Your task to perform on an android device: Go to CNN.com Image 0: 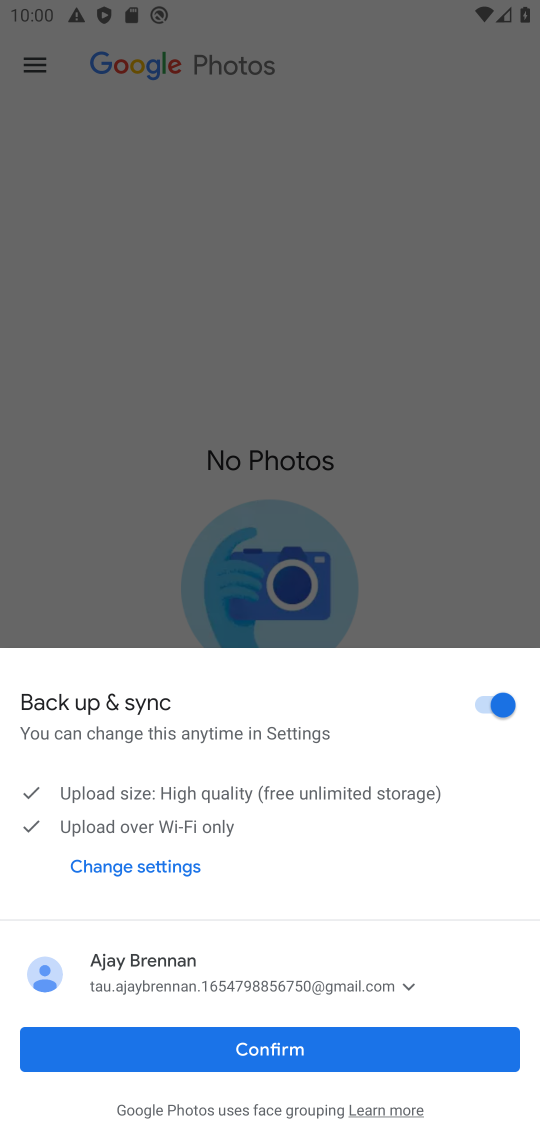
Step 0: press home button
Your task to perform on an android device: Go to CNN.com Image 1: 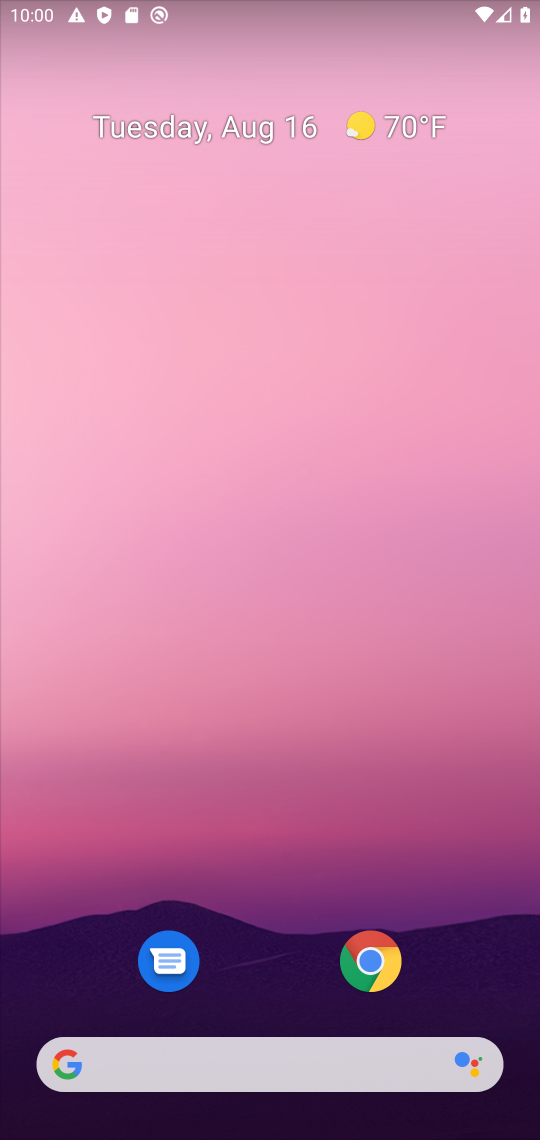
Step 1: click (252, 1042)
Your task to perform on an android device: Go to CNN.com Image 2: 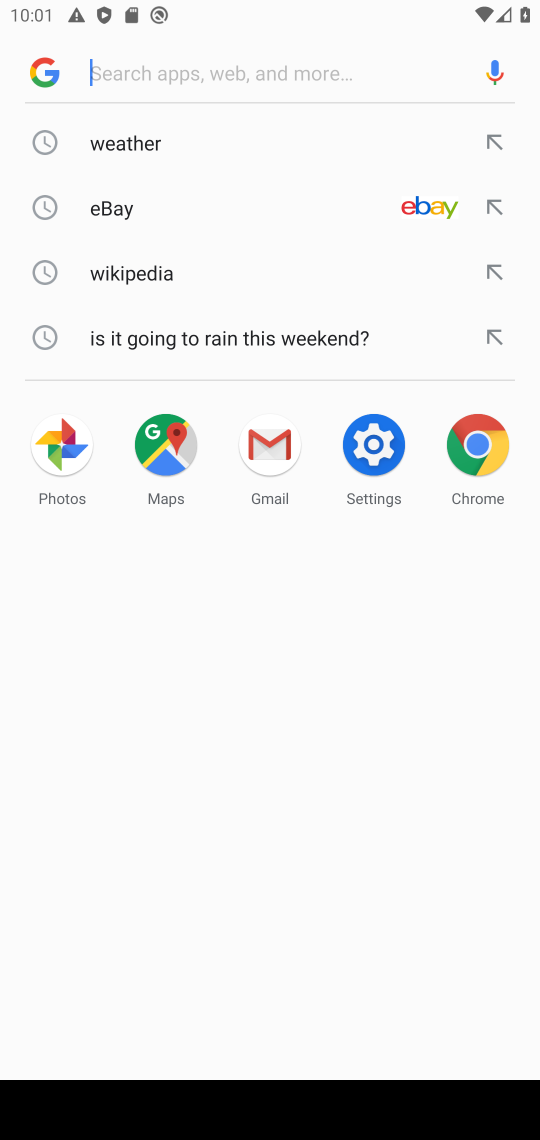
Step 2: type " CNN.com"
Your task to perform on an android device: Go to CNN.com Image 3: 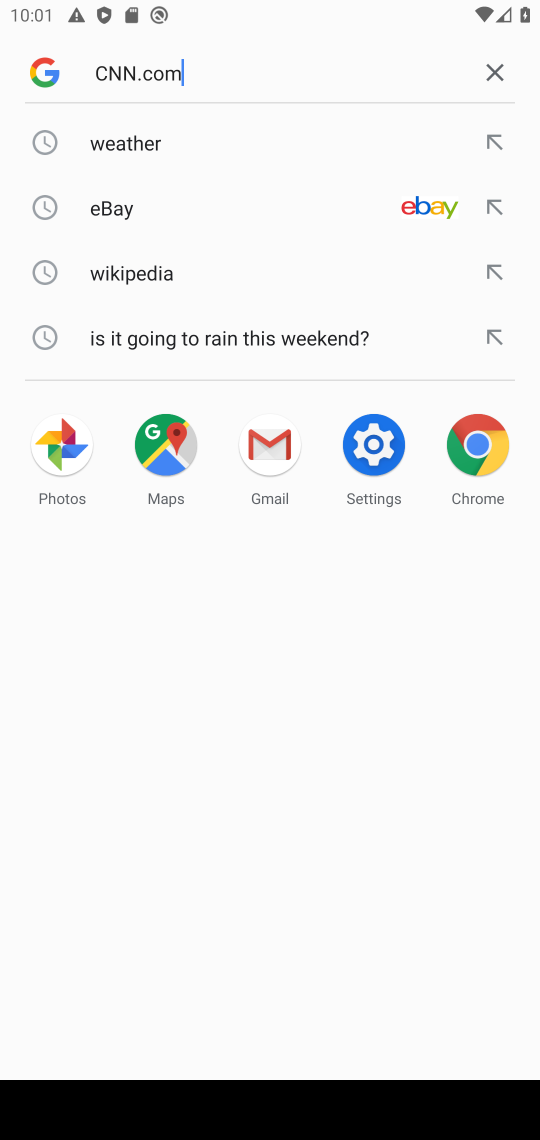
Step 3: press enter
Your task to perform on an android device: Go to CNN.com Image 4: 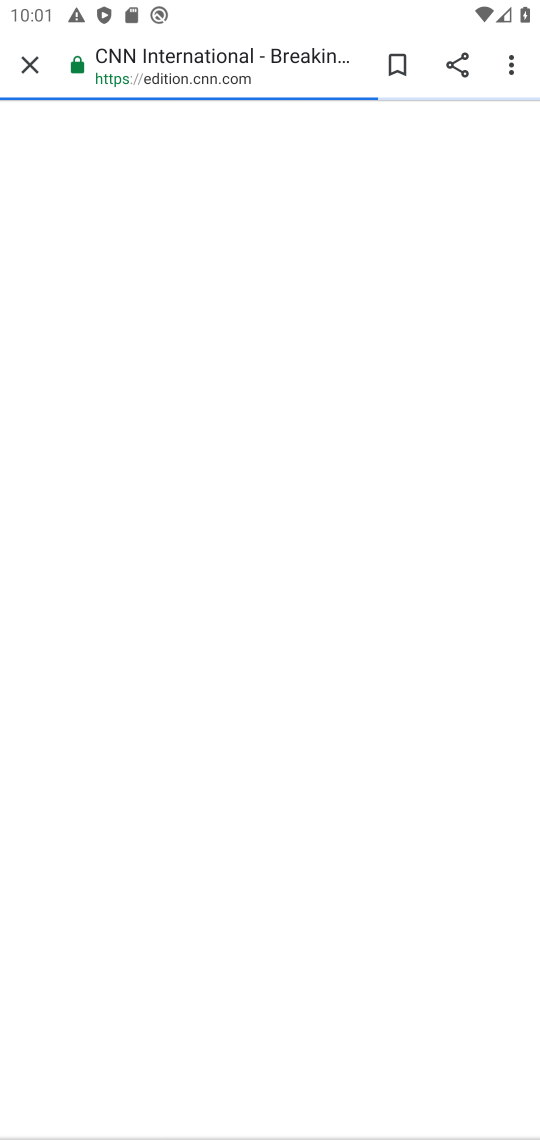
Step 4: task complete